Your task to perform on an android device: change notifications settings Image 0: 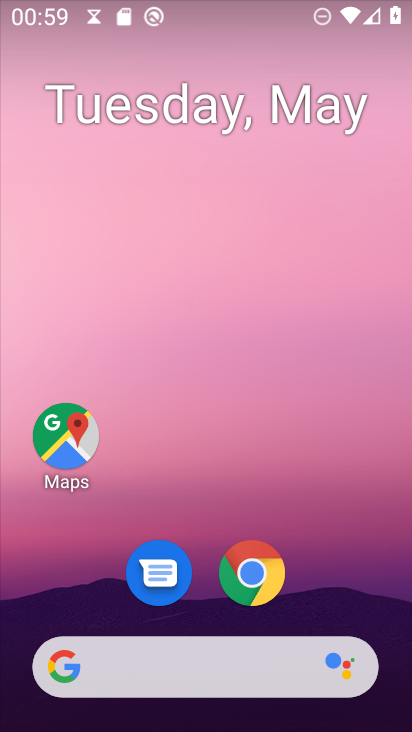
Step 0: drag from (351, 577) to (219, 11)
Your task to perform on an android device: change notifications settings Image 1: 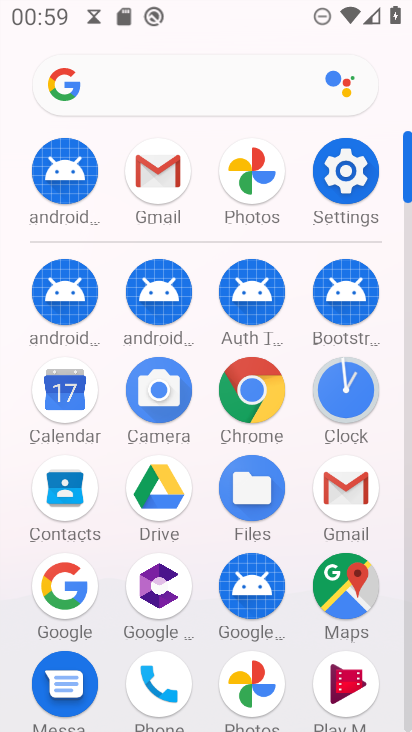
Step 1: click (359, 151)
Your task to perform on an android device: change notifications settings Image 2: 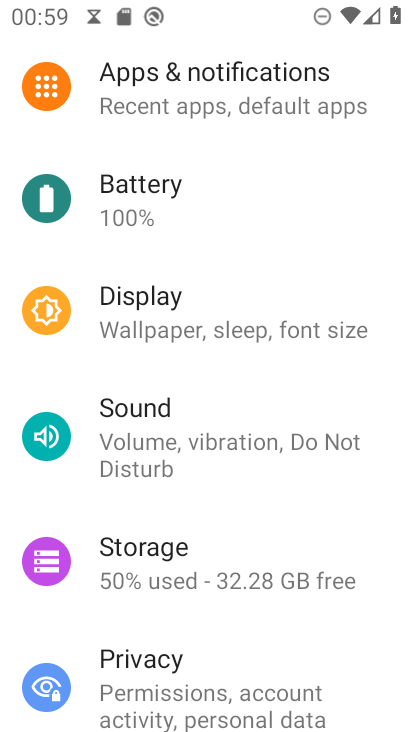
Step 2: drag from (242, 587) to (226, 184)
Your task to perform on an android device: change notifications settings Image 3: 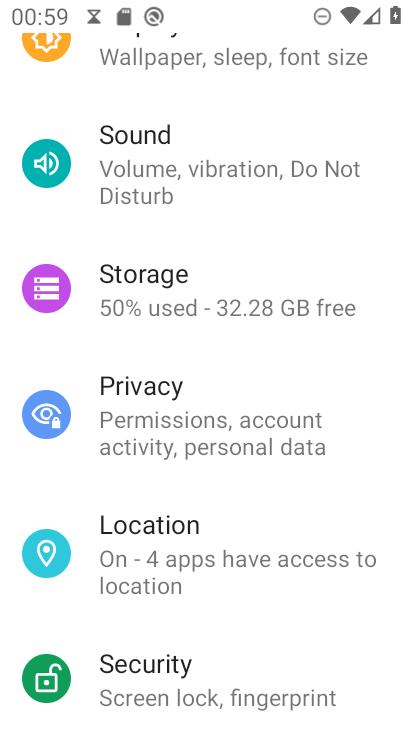
Step 3: drag from (256, 136) to (281, 731)
Your task to perform on an android device: change notifications settings Image 4: 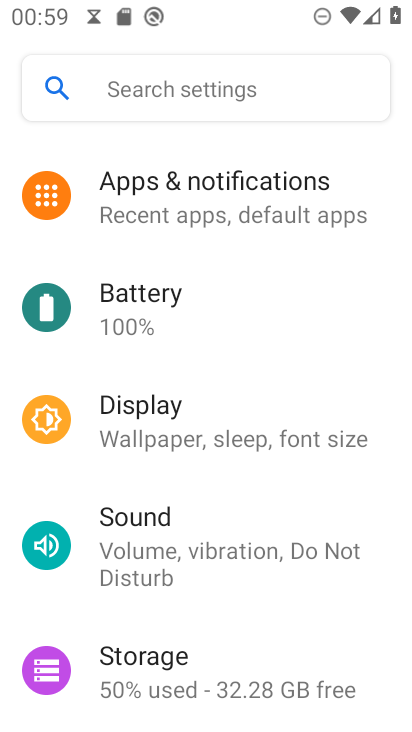
Step 4: click (249, 189)
Your task to perform on an android device: change notifications settings Image 5: 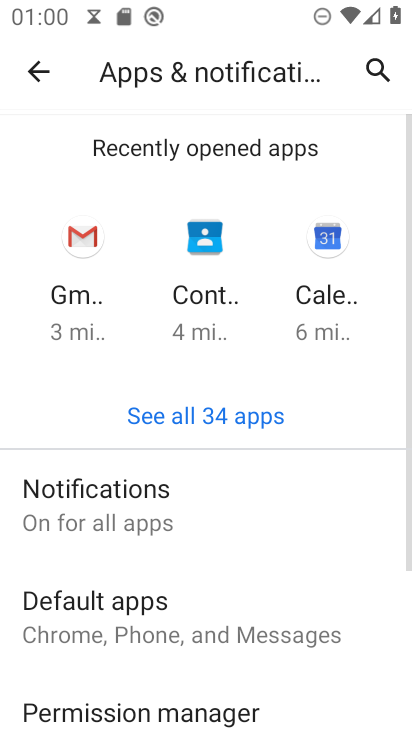
Step 5: drag from (263, 564) to (289, 173)
Your task to perform on an android device: change notifications settings Image 6: 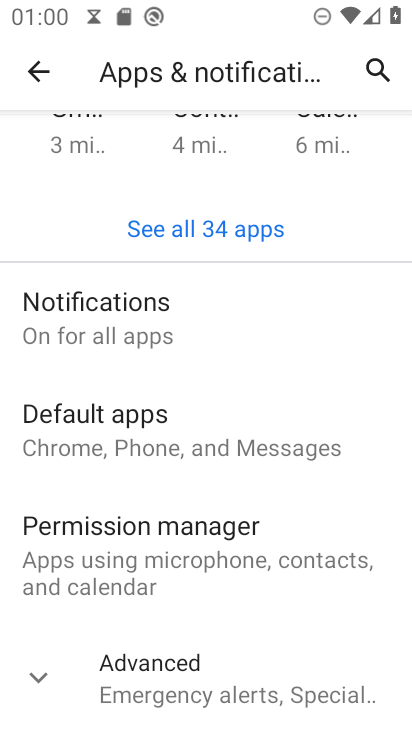
Step 6: click (247, 350)
Your task to perform on an android device: change notifications settings Image 7: 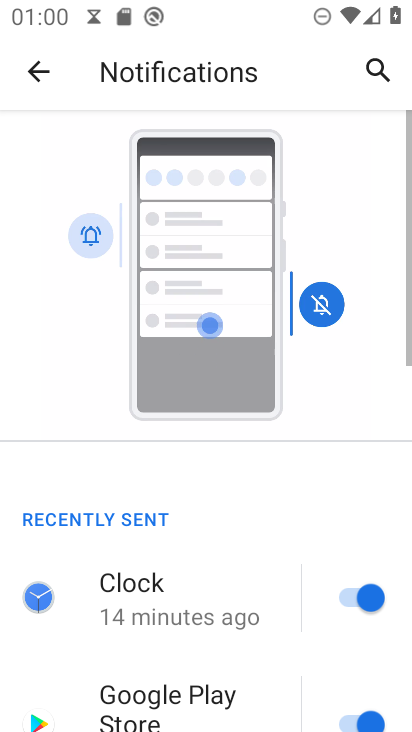
Step 7: drag from (209, 593) to (217, 222)
Your task to perform on an android device: change notifications settings Image 8: 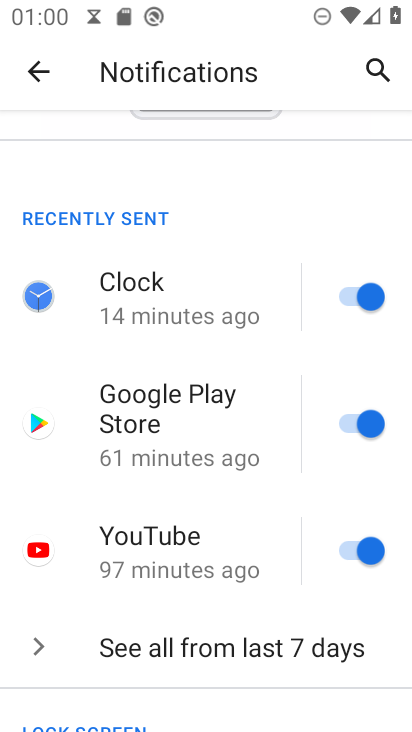
Step 8: click (356, 292)
Your task to perform on an android device: change notifications settings Image 9: 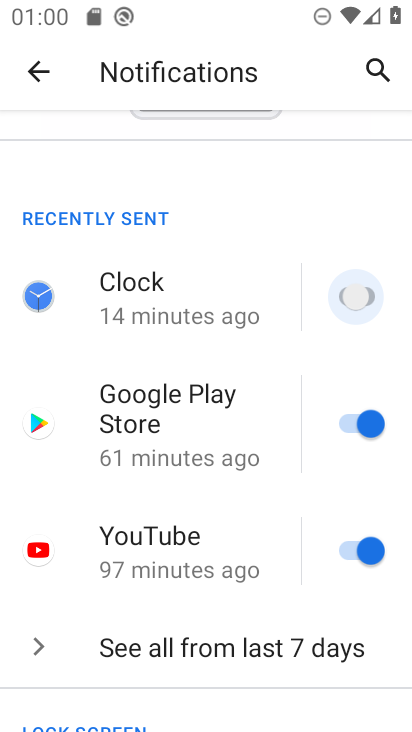
Step 9: click (357, 441)
Your task to perform on an android device: change notifications settings Image 10: 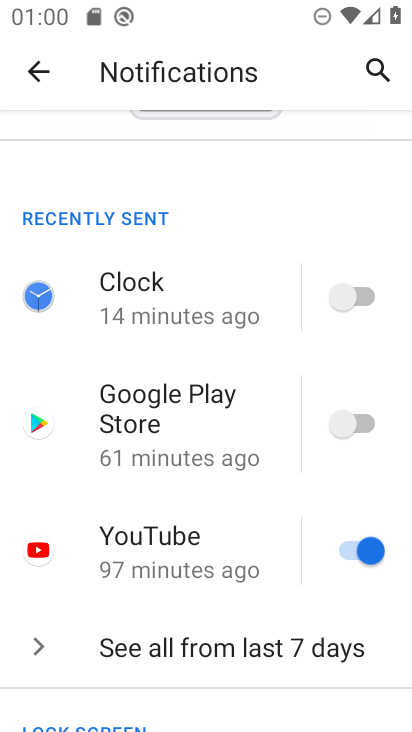
Step 10: click (354, 557)
Your task to perform on an android device: change notifications settings Image 11: 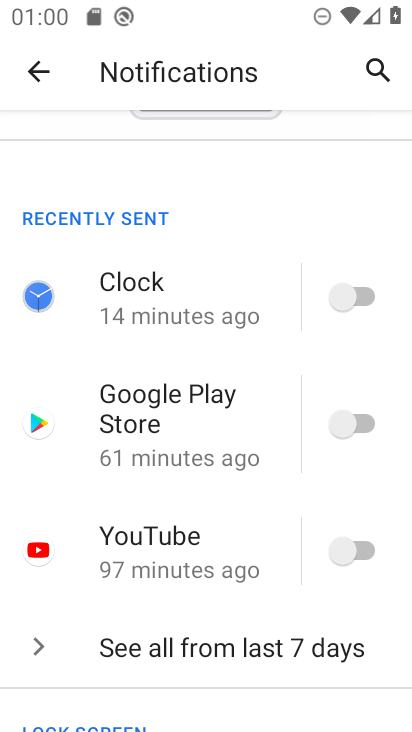
Step 11: task complete